Your task to perform on an android device: Open Google Chrome and click the shortcut for Amazon.com Image 0: 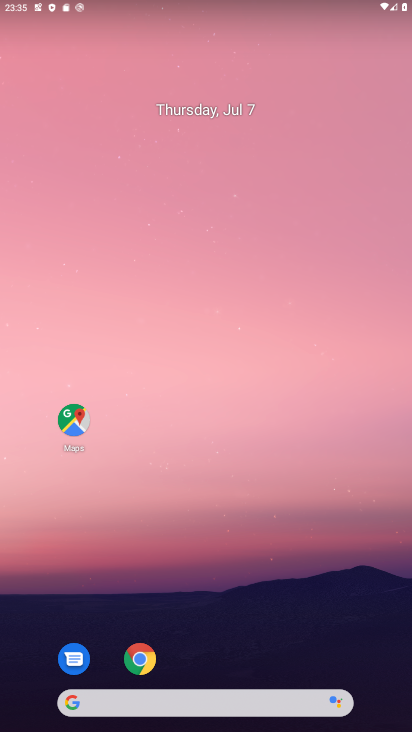
Step 0: click (140, 671)
Your task to perform on an android device: Open Google Chrome and click the shortcut for Amazon.com Image 1: 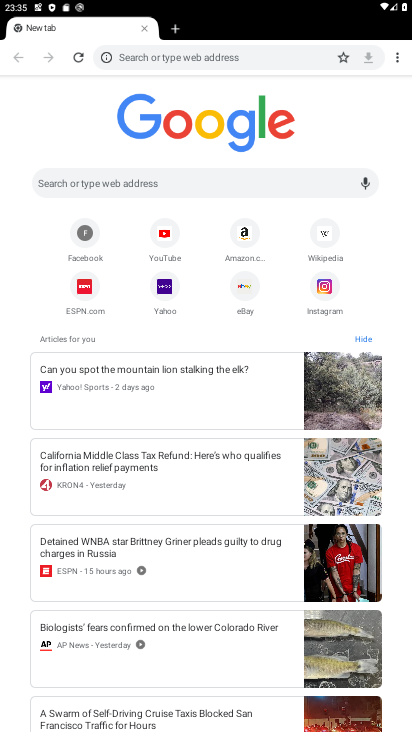
Step 1: click (249, 234)
Your task to perform on an android device: Open Google Chrome and click the shortcut for Amazon.com Image 2: 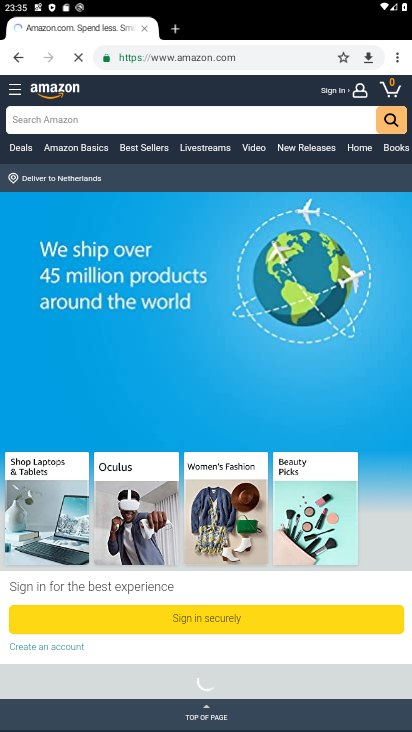
Step 2: task complete